Your task to perform on an android device: Do I have any events this weekend? Image 0: 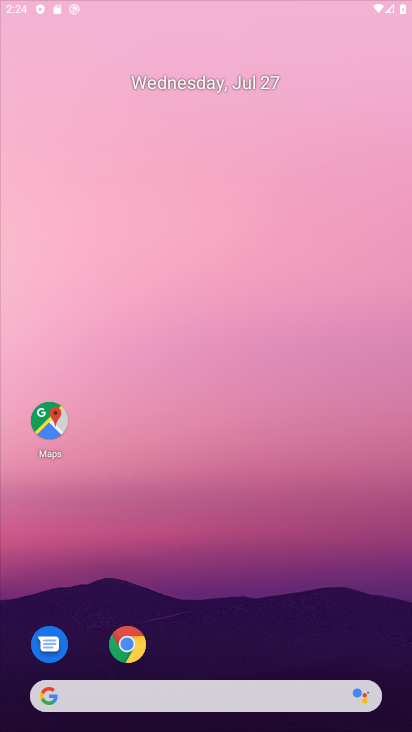
Step 0: click (242, 328)
Your task to perform on an android device: Do I have any events this weekend? Image 1: 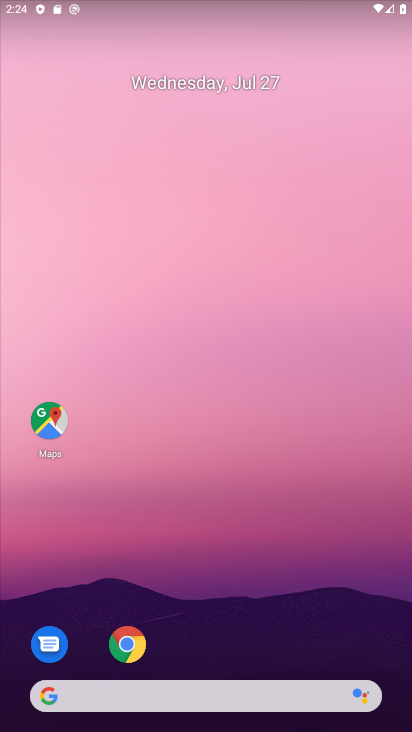
Step 1: drag from (205, 656) to (213, 1)
Your task to perform on an android device: Do I have any events this weekend? Image 2: 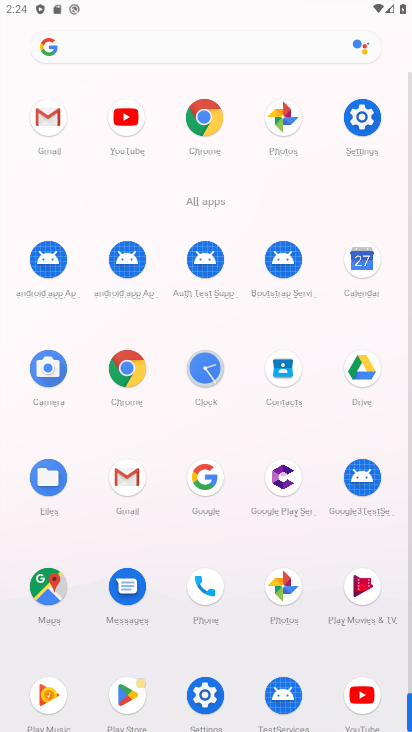
Step 2: click (362, 281)
Your task to perform on an android device: Do I have any events this weekend? Image 3: 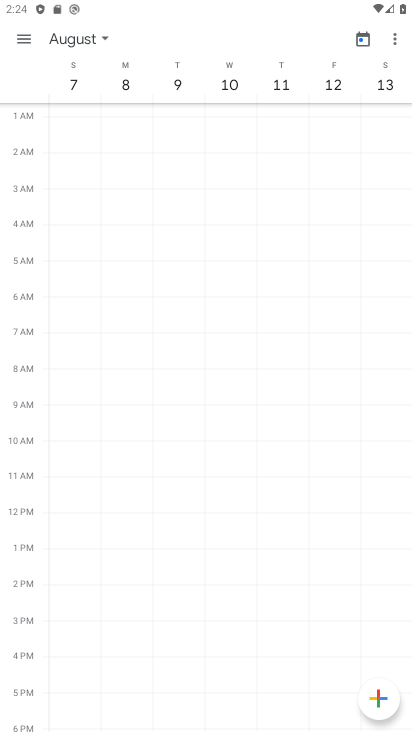
Step 3: drag from (92, 84) to (405, 91)
Your task to perform on an android device: Do I have any events this weekend? Image 4: 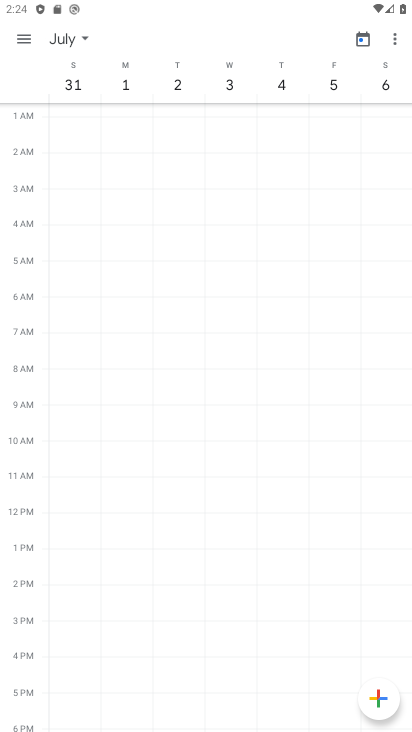
Step 4: drag from (74, 89) to (395, 96)
Your task to perform on an android device: Do I have any events this weekend? Image 5: 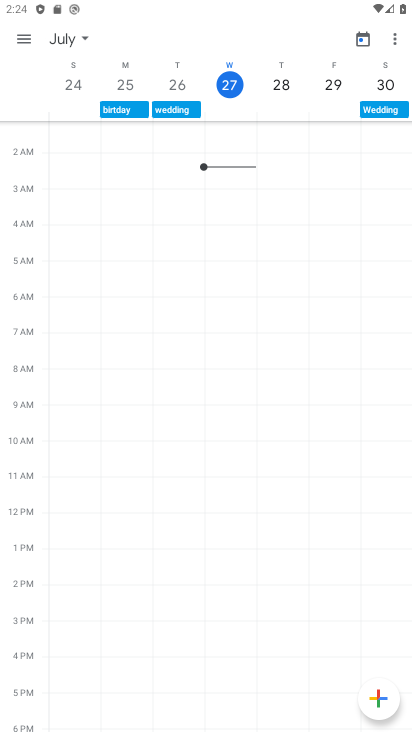
Step 5: click (22, 34)
Your task to perform on an android device: Do I have any events this weekend? Image 6: 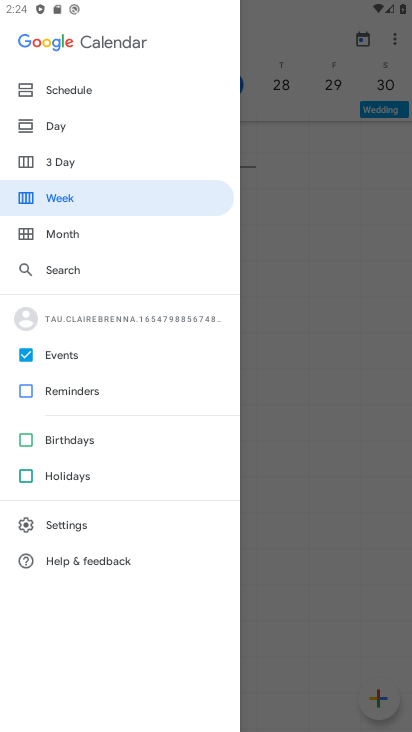
Step 6: click (97, 201)
Your task to perform on an android device: Do I have any events this weekend? Image 7: 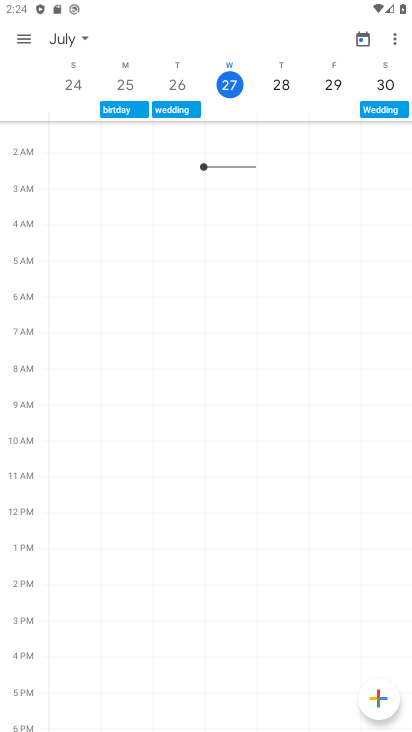
Step 7: task complete